Your task to perform on an android device: Do I have any events today? Image 0: 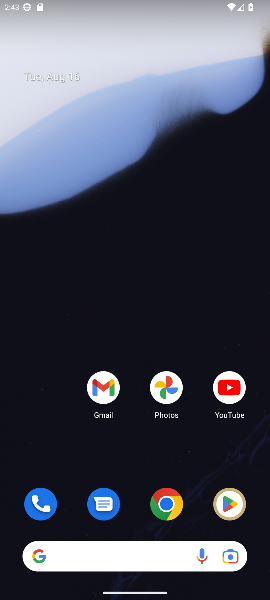
Step 0: drag from (121, 537) to (135, 189)
Your task to perform on an android device: Do I have any events today? Image 1: 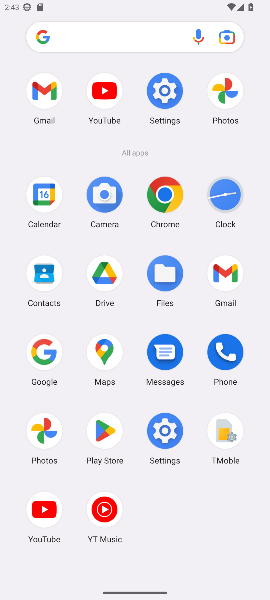
Step 1: click (35, 200)
Your task to perform on an android device: Do I have any events today? Image 2: 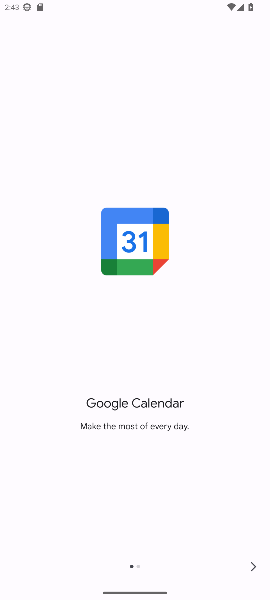
Step 2: click (252, 565)
Your task to perform on an android device: Do I have any events today? Image 3: 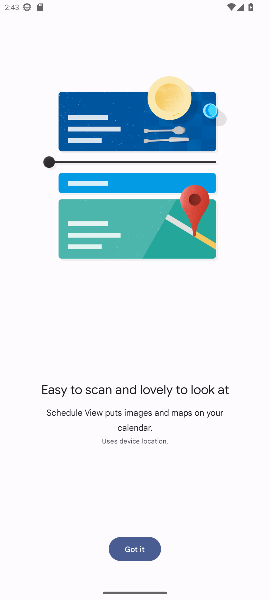
Step 3: click (116, 540)
Your task to perform on an android device: Do I have any events today? Image 4: 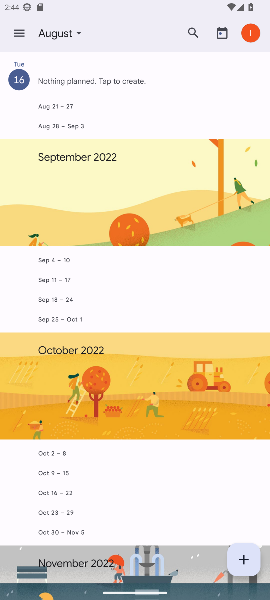
Step 4: click (66, 28)
Your task to perform on an android device: Do I have any events today? Image 5: 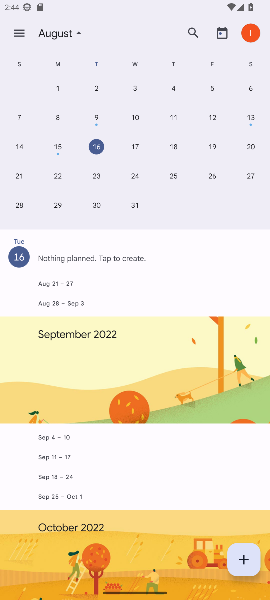
Step 5: click (93, 143)
Your task to perform on an android device: Do I have any events today? Image 6: 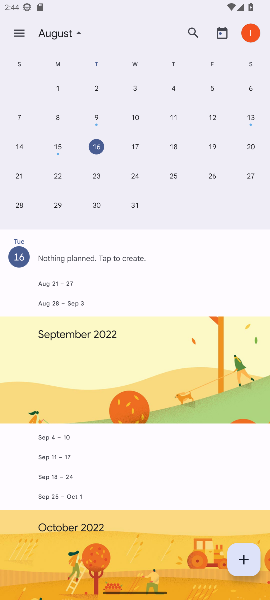
Step 6: task complete